Your task to perform on an android device: Open accessibility settings Image 0: 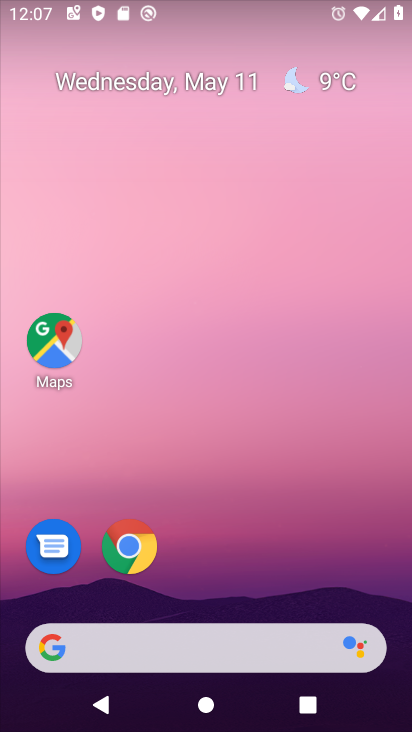
Step 0: drag from (190, 610) to (266, 290)
Your task to perform on an android device: Open accessibility settings Image 1: 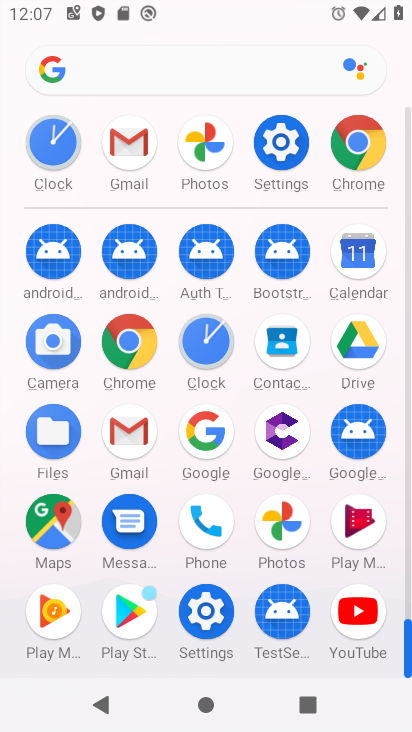
Step 1: click (279, 144)
Your task to perform on an android device: Open accessibility settings Image 2: 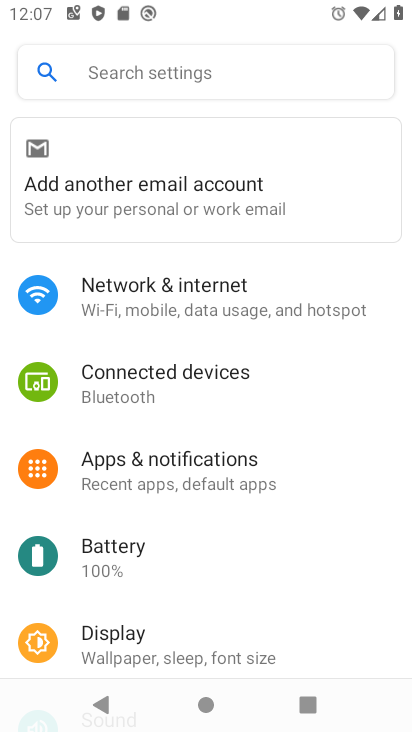
Step 2: drag from (191, 638) to (222, 461)
Your task to perform on an android device: Open accessibility settings Image 3: 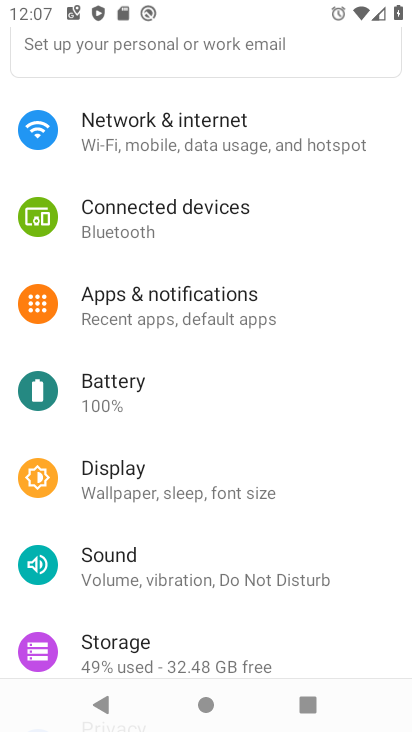
Step 3: drag from (175, 609) to (293, 55)
Your task to perform on an android device: Open accessibility settings Image 4: 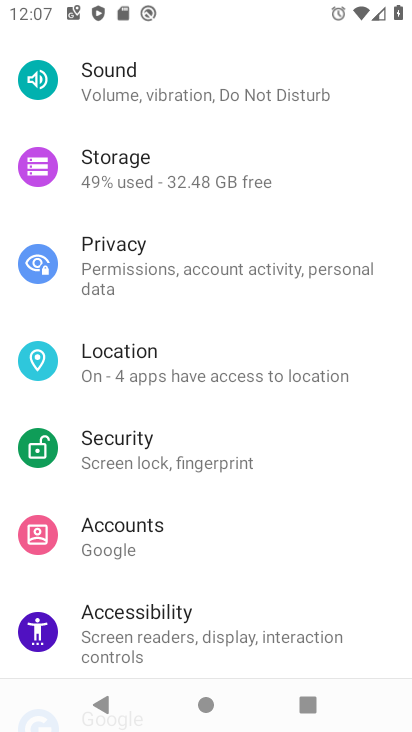
Step 4: click (157, 622)
Your task to perform on an android device: Open accessibility settings Image 5: 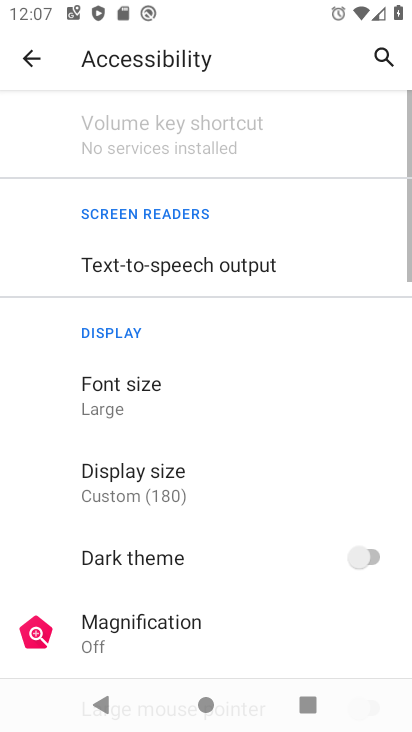
Step 5: task complete